Your task to perform on an android device: open app "Walmart Shopping & Grocery" (install if not already installed) and go to login screen Image 0: 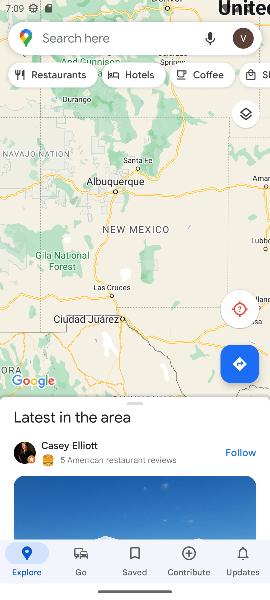
Step 0: press home button
Your task to perform on an android device: open app "Walmart Shopping & Grocery" (install if not already installed) and go to login screen Image 1: 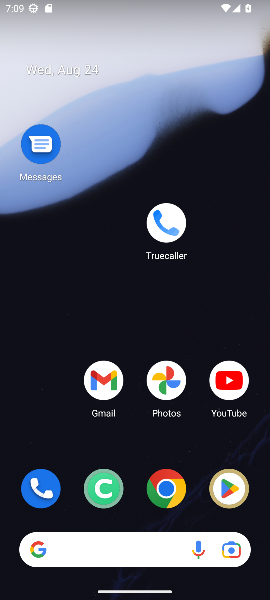
Step 1: click (239, 494)
Your task to perform on an android device: open app "Walmart Shopping & Grocery" (install if not already installed) and go to login screen Image 2: 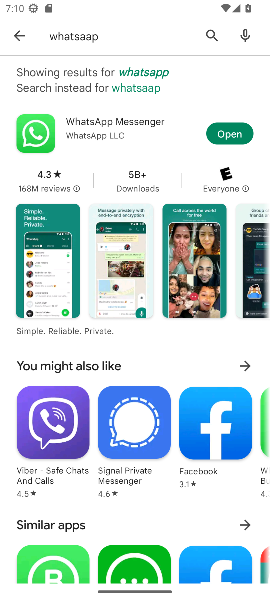
Step 2: click (206, 48)
Your task to perform on an android device: open app "Walmart Shopping & Grocery" (install if not already installed) and go to login screen Image 3: 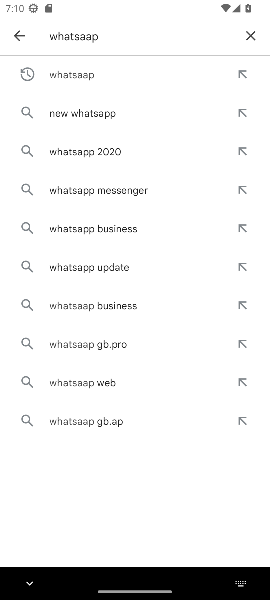
Step 3: click (252, 43)
Your task to perform on an android device: open app "Walmart Shopping & Grocery" (install if not already installed) and go to login screen Image 4: 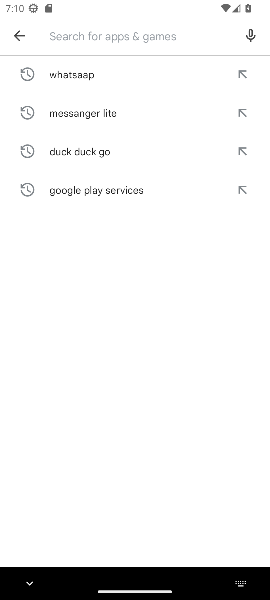
Step 4: type "walmart"
Your task to perform on an android device: open app "Walmart Shopping & Grocery" (install if not already installed) and go to login screen Image 5: 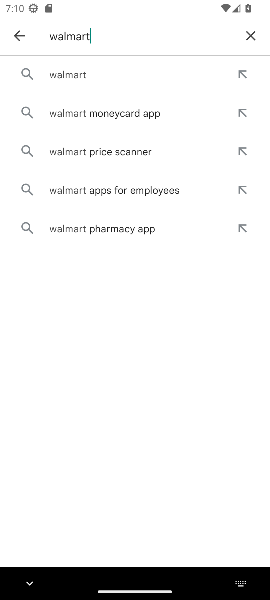
Step 5: click (130, 80)
Your task to perform on an android device: open app "Walmart Shopping & Grocery" (install if not already installed) and go to login screen Image 6: 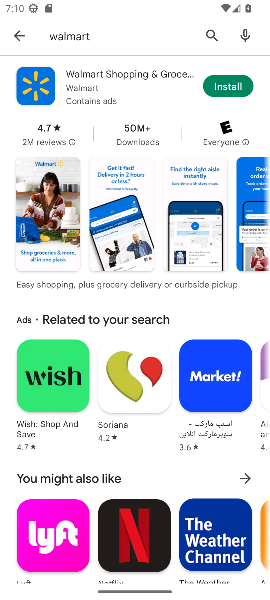
Step 6: click (236, 90)
Your task to perform on an android device: open app "Walmart Shopping & Grocery" (install if not already installed) and go to login screen Image 7: 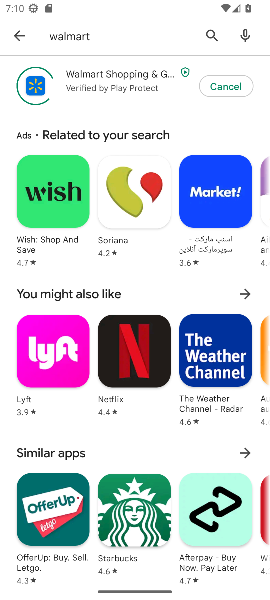
Step 7: task complete